Your task to perform on an android device: turn off priority inbox in the gmail app Image 0: 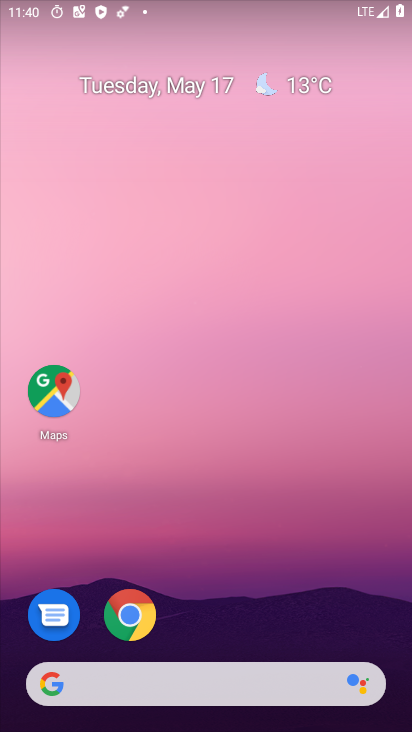
Step 0: press home button
Your task to perform on an android device: turn off priority inbox in the gmail app Image 1: 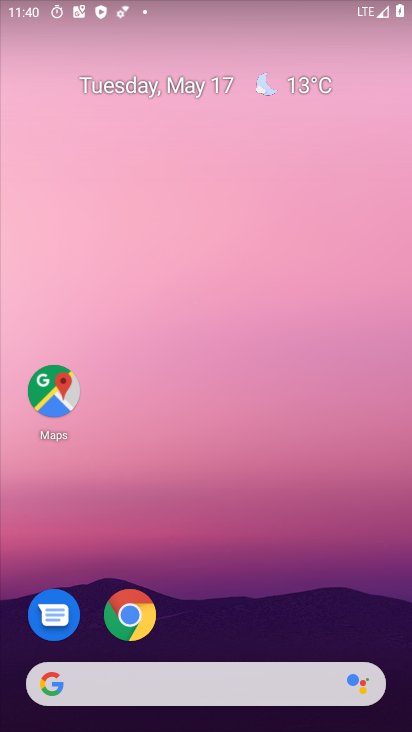
Step 1: drag from (144, 681) to (279, 192)
Your task to perform on an android device: turn off priority inbox in the gmail app Image 2: 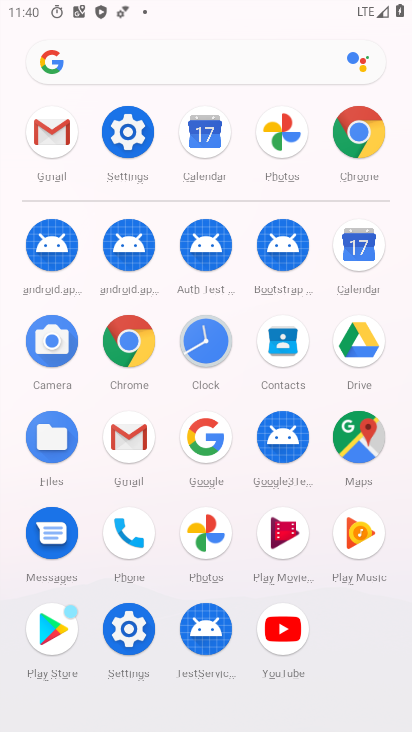
Step 2: click (57, 147)
Your task to perform on an android device: turn off priority inbox in the gmail app Image 3: 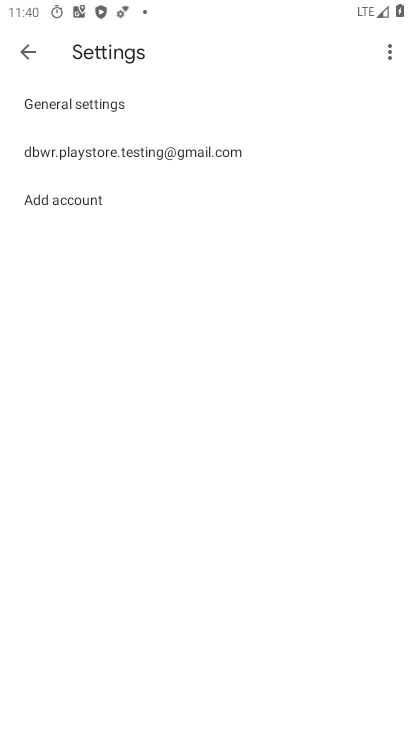
Step 3: click (175, 146)
Your task to perform on an android device: turn off priority inbox in the gmail app Image 4: 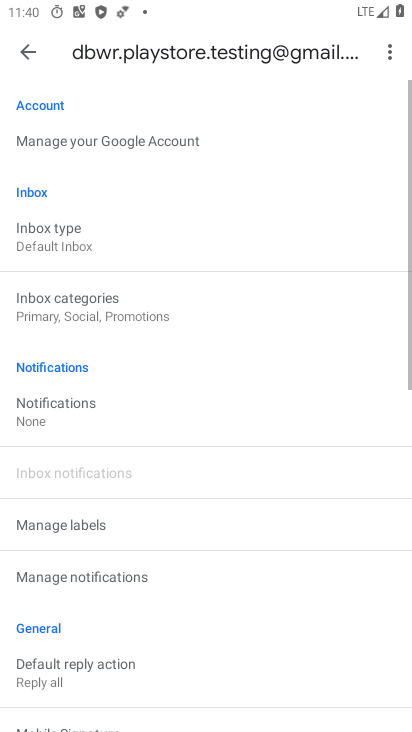
Step 4: click (73, 236)
Your task to perform on an android device: turn off priority inbox in the gmail app Image 5: 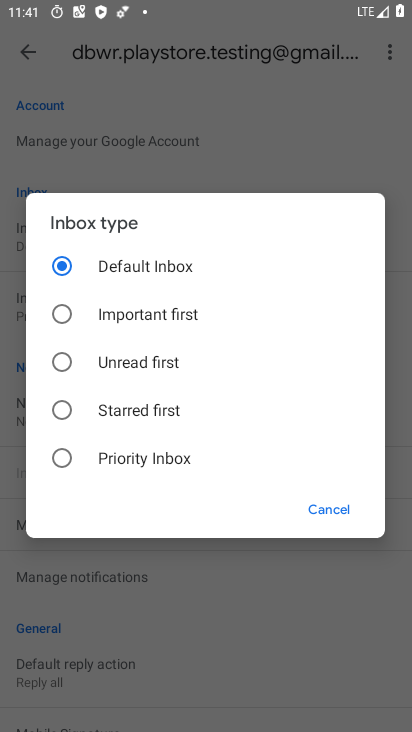
Step 5: task complete